Your task to perform on an android device: Search for the best fantasy books on Goodreads. Image 0: 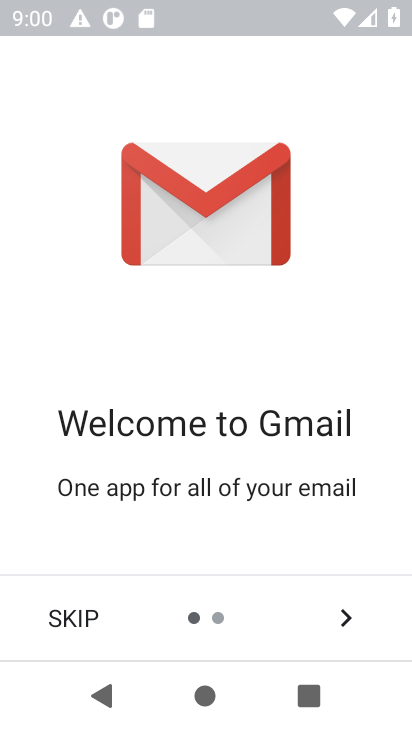
Step 0: click (72, 623)
Your task to perform on an android device: Search for the best fantasy books on Goodreads. Image 1: 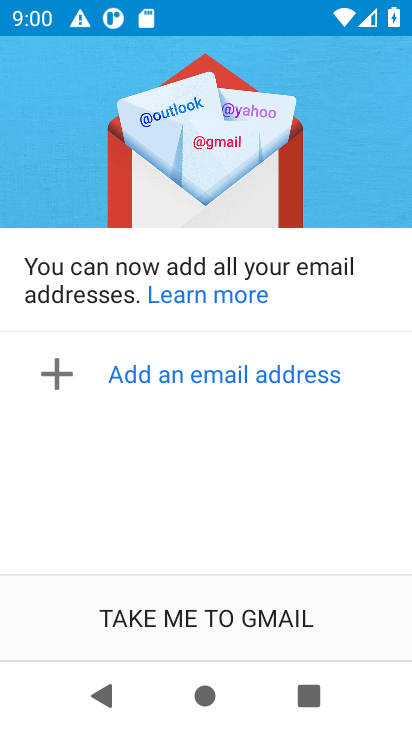
Step 1: click (72, 623)
Your task to perform on an android device: Search for the best fantasy books on Goodreads. Image 2: 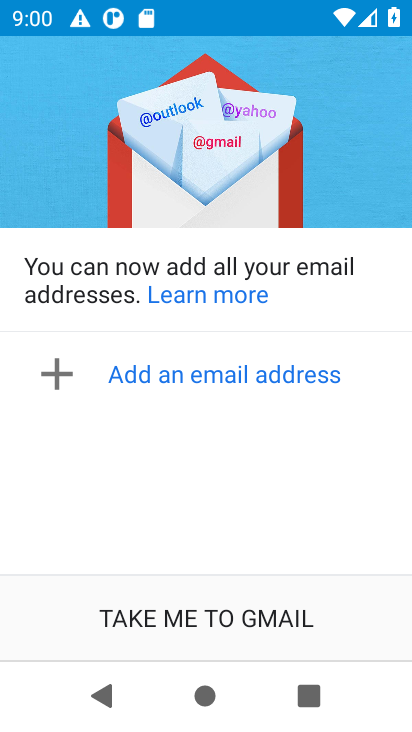
Step 2: task complete